Your task to perform on an android device: Go to Android settings Image 0: 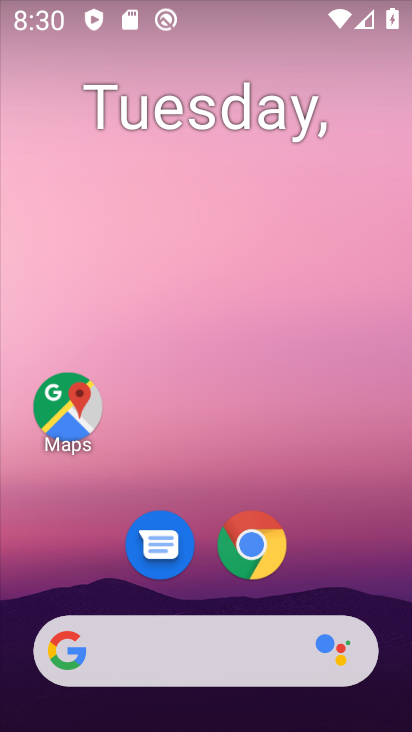
Step 0: drag from (321, 575) to (305, 86)
Your task to perform on an android device: Go to Android settings Image 1: 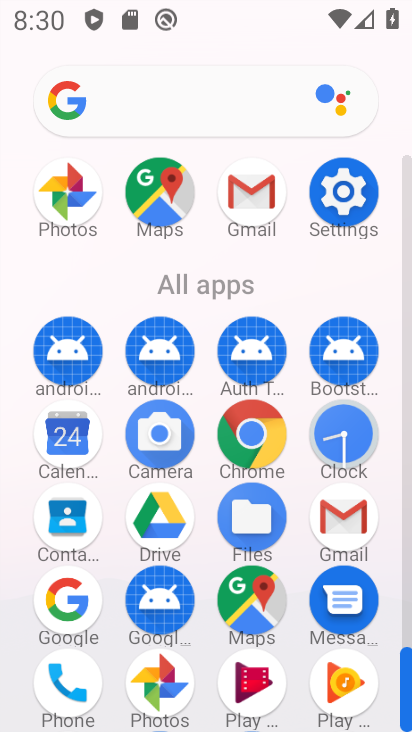
Step 1: click (352, 199)
Your task to perform on an android device: Go to Android settings Image 2: 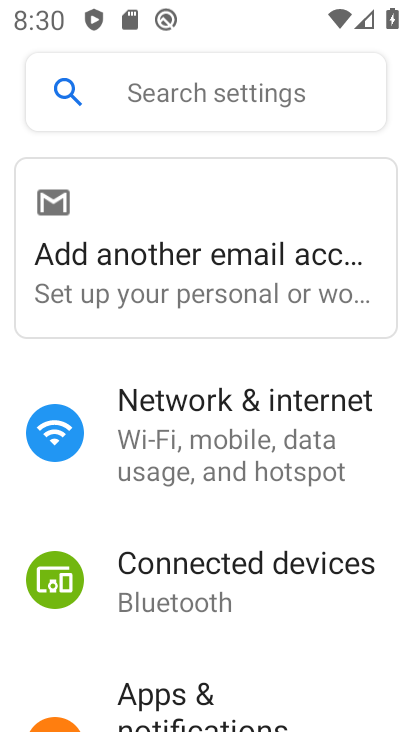
Step 2: drag from (251, 579) to (250, 176)
Your task to perform on an android device: Go to Android settings Image 3: 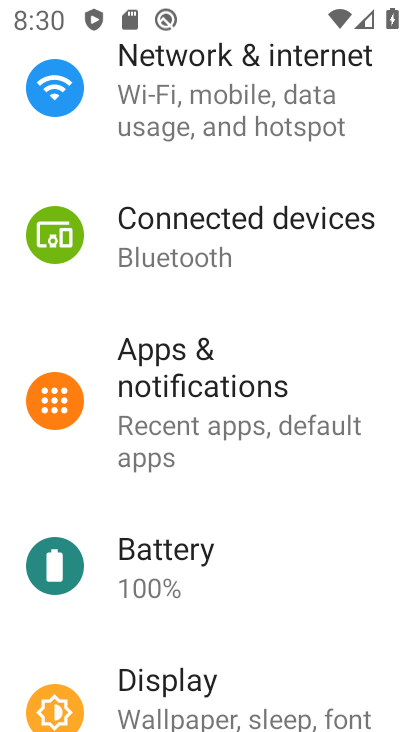
Step 3: drag from (244, 652) to (290, 217)
Your task to perform on an android device: Go to Android settings Image 4: 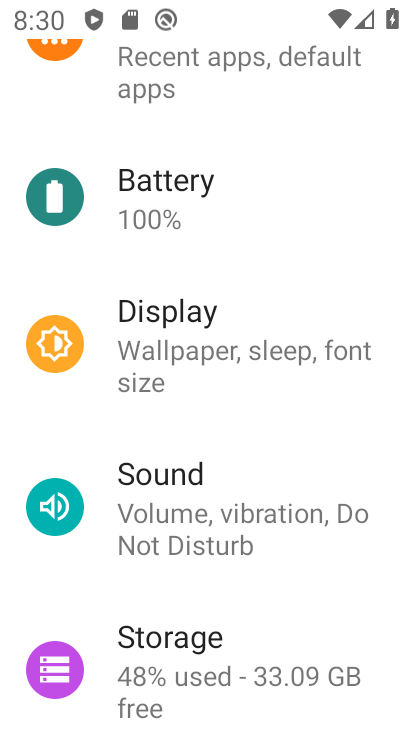
Step 4: drag from (264, 612) to (283, 302)
Your task to perform on an android device: Go to Android settings Image 5: 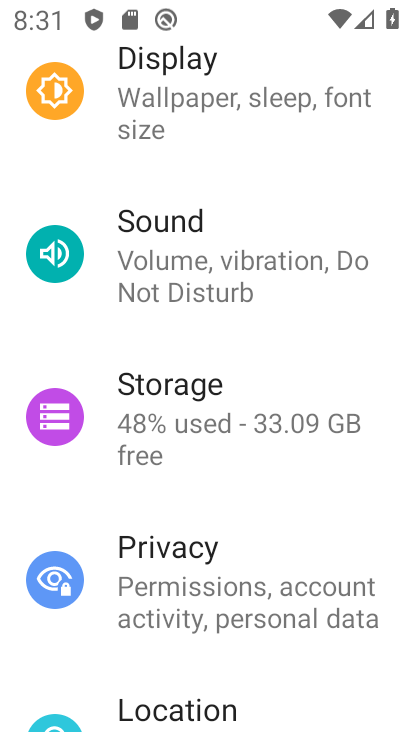
Step 5: drag from (220, 633) to (256, 282)
Your task to perform on an android device: Go to Android settings Image 6: 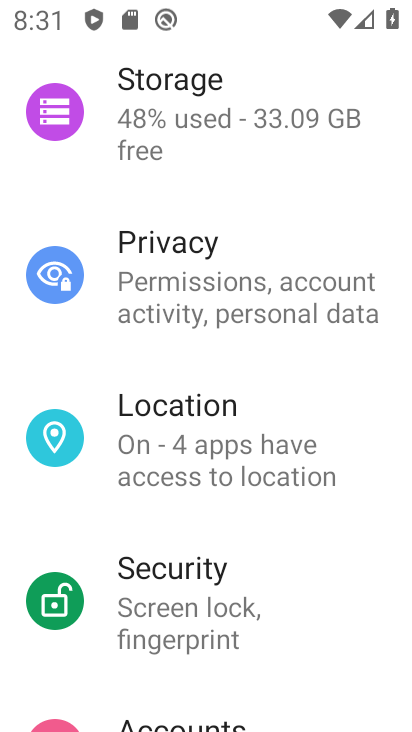
Step 6: drag from (179, 663) to (211, 393)
Your task to perform on an android device: Go to Android settings Image 7: 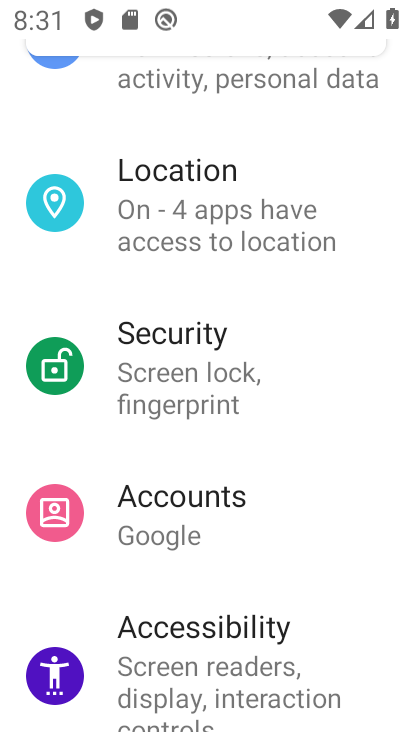
Step 7: drag from (214, 583) to (238, 322)
Your task to perform on an android device: Go to Android settings Image 8: 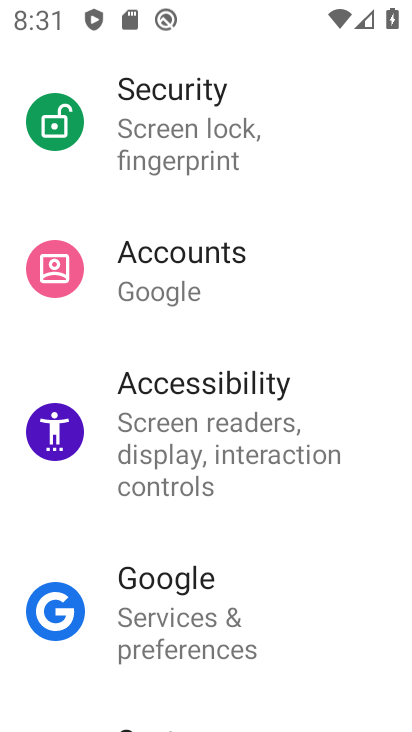
Step 8: drag from (200, 716) to (239, 336)
Your task to perform on an android device: Go to Android settings Image 9: 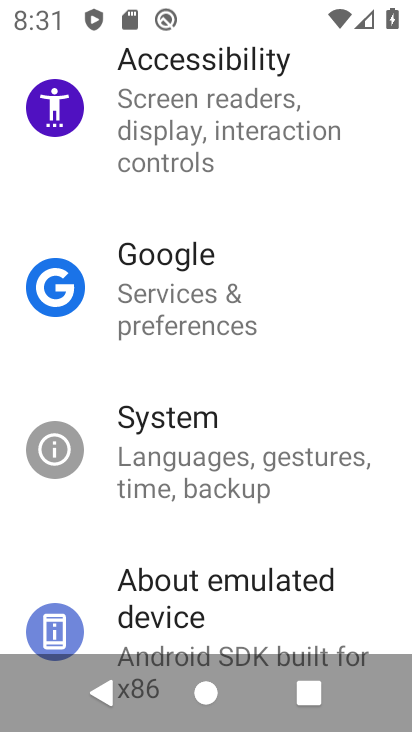
Step 9: click (233, 434)
Your task to perform on an android device: Go to Android settings Image 10: 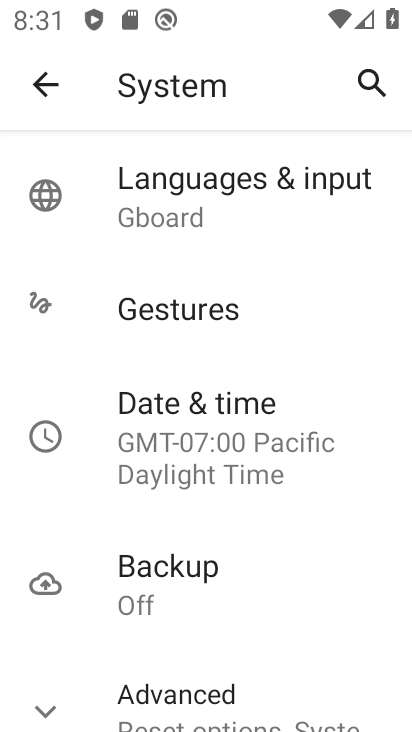
Step 10: task complete